Your task to perform on an android device: Open Google Chrome and open the bookmarks view Image 0: 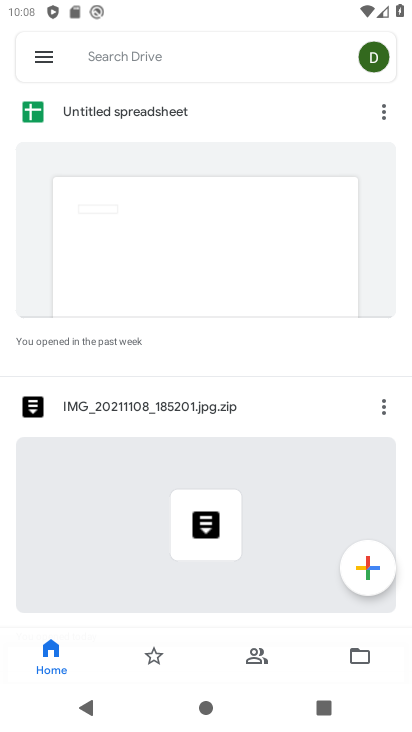
Step 0: press home button
Your task to perform on an android device: Open Google Chrome and open the bookmarks view Image 1: 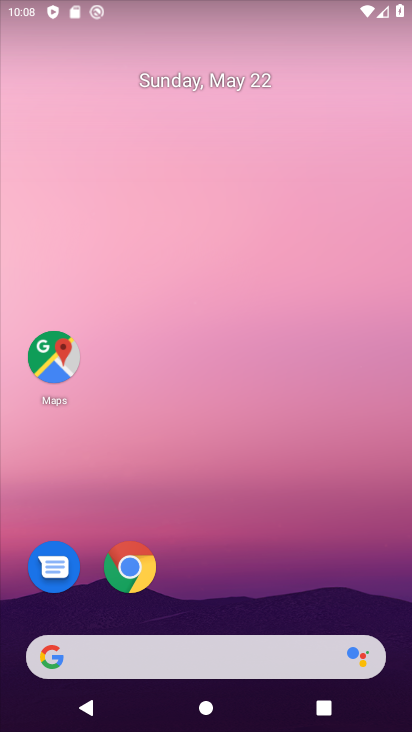
Step 1: click (125, 569)
Your task to perform on an android device: Open Google Chrome and open the bookmarks view Image 2: 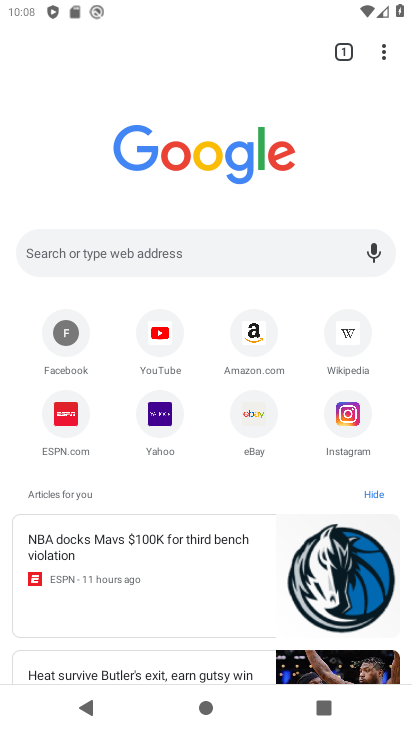
Step 2: click (381, 55)
Your task to perform on an android device: Open Google Chrome and open the bookmarks view Image 3: 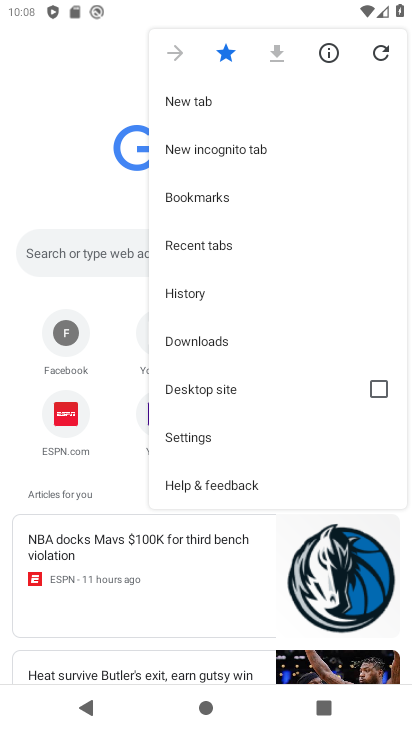
Step 3: click (177, 196)
Your task to perform on an android device: Open Google Chrome and open the bookmarks view Image 4: 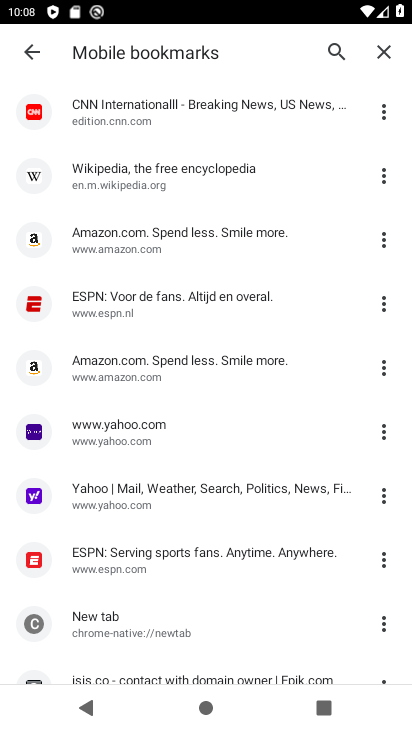
Step 4: task complete